Your task to perform on an android device: Open display settings Image 0: 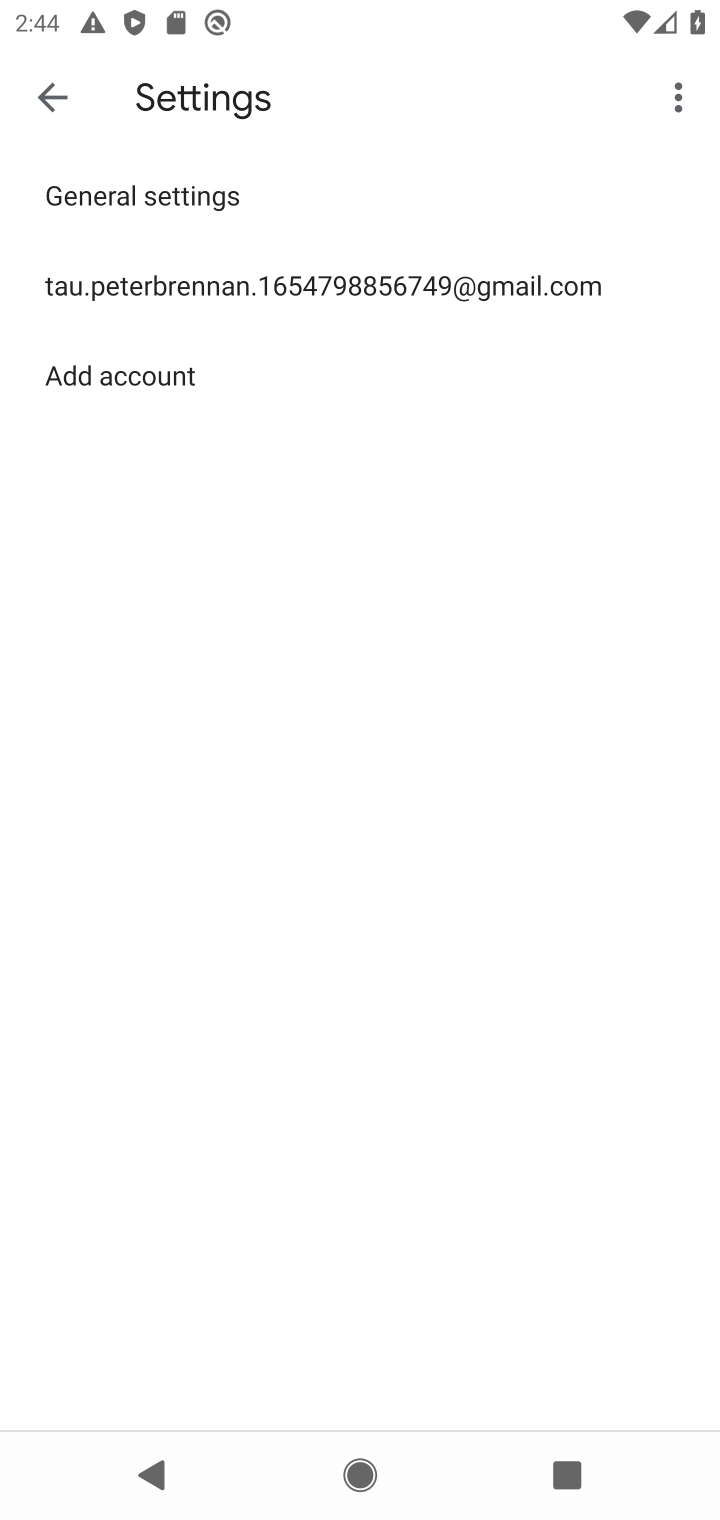
Step 0: press home button
Your task to perform on an android device: Open display settings Image 1: 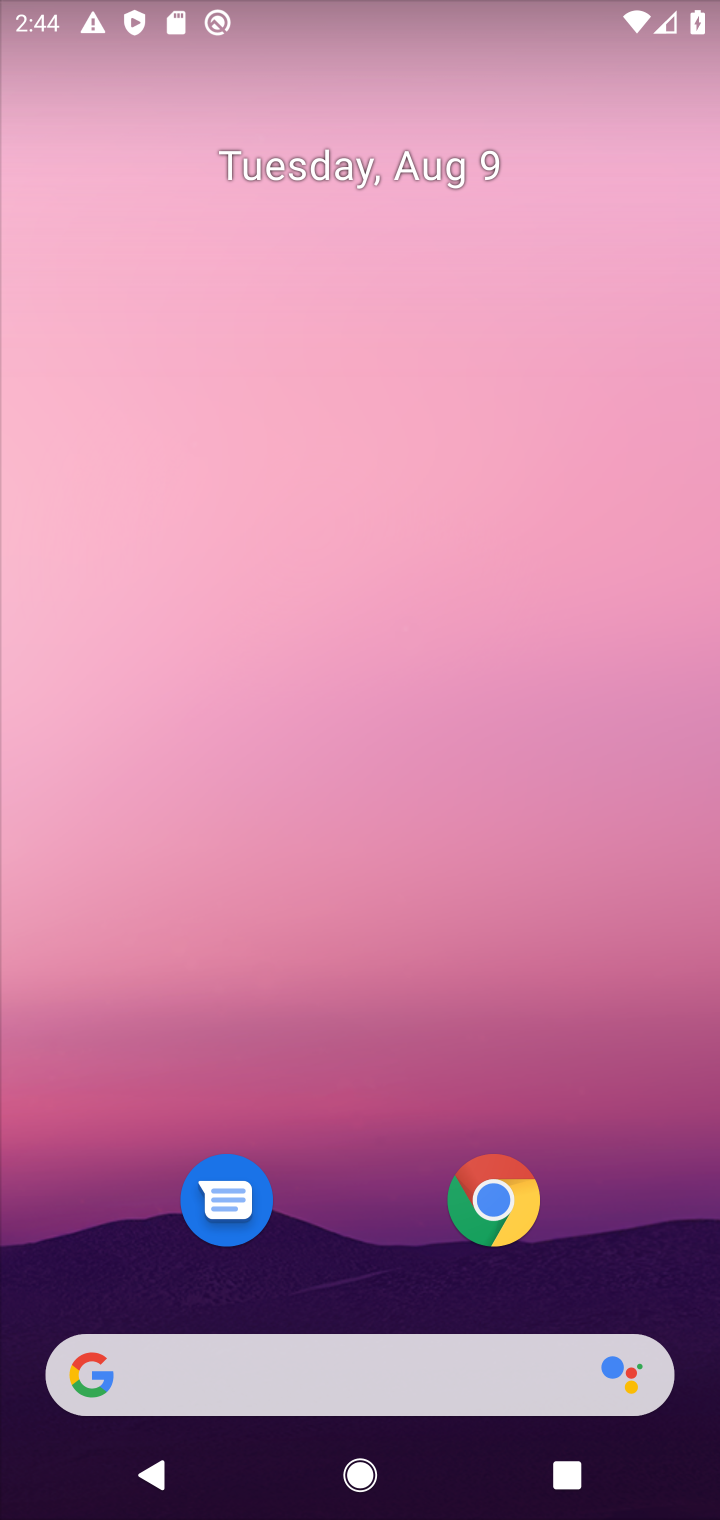
Step 1: drag from (196, 910) to (405, 62)
Your task to perform on an android device: Open display settings Image 2: 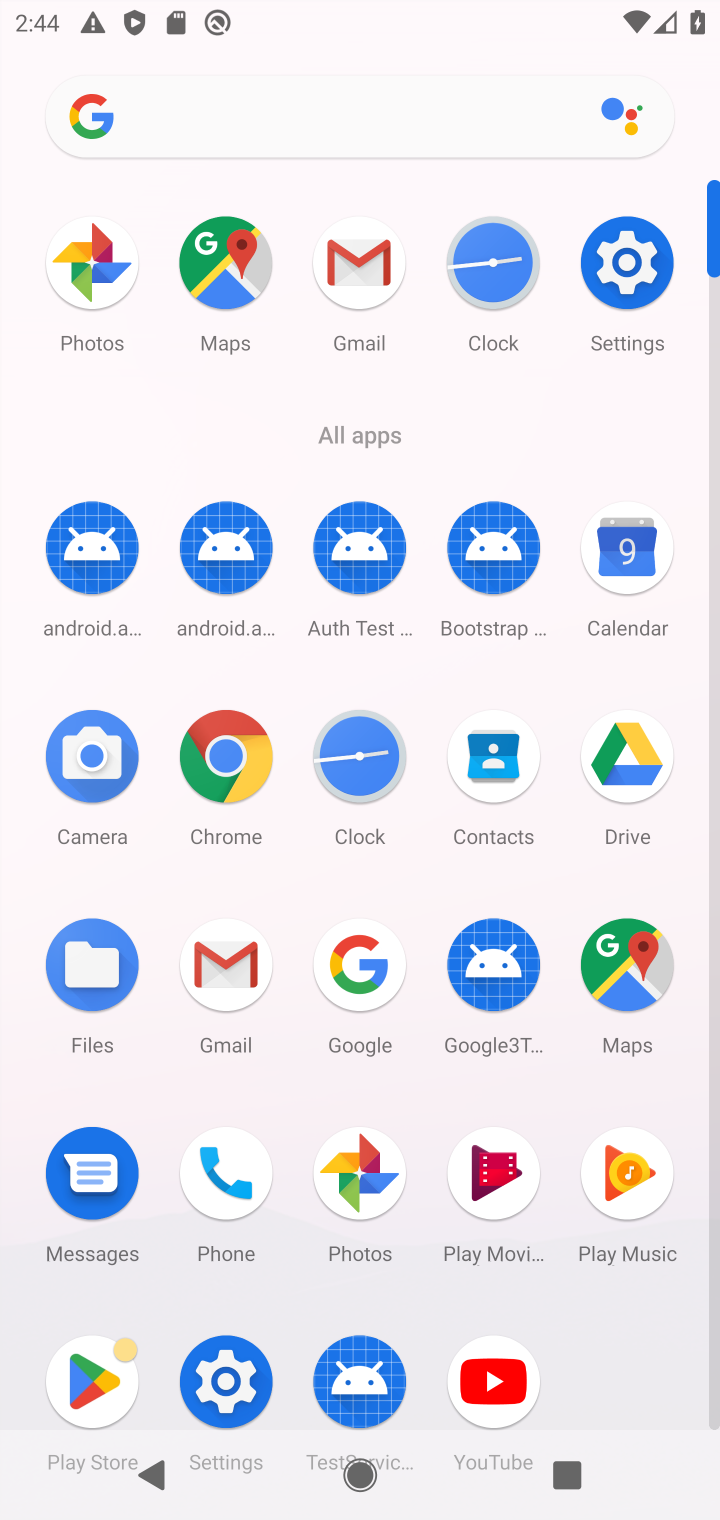
Step 2: click (626, 281)
Your task to perform on an android device: Open display settings Image 3: 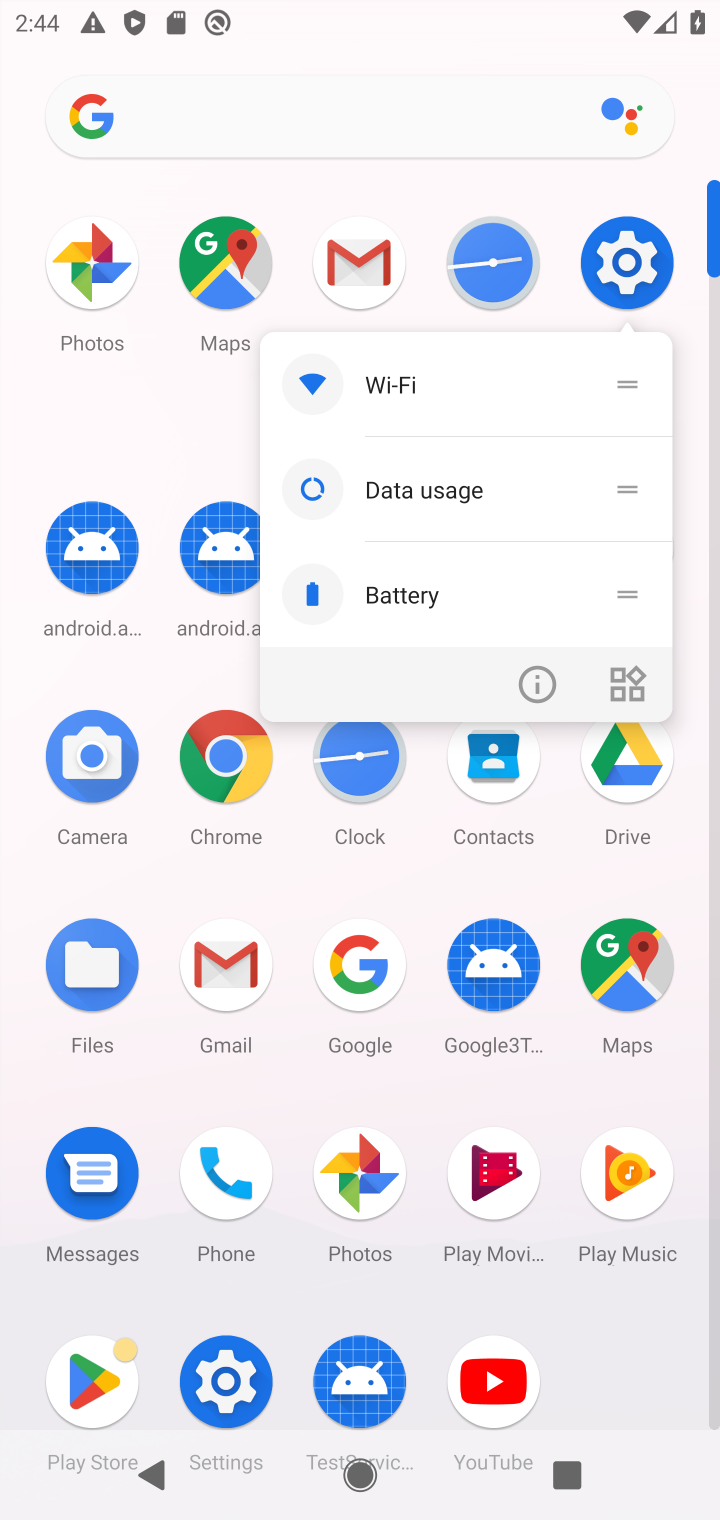
Step 3: click (620, 283)
Your task to perform on an android device: Open display settings Image 4: 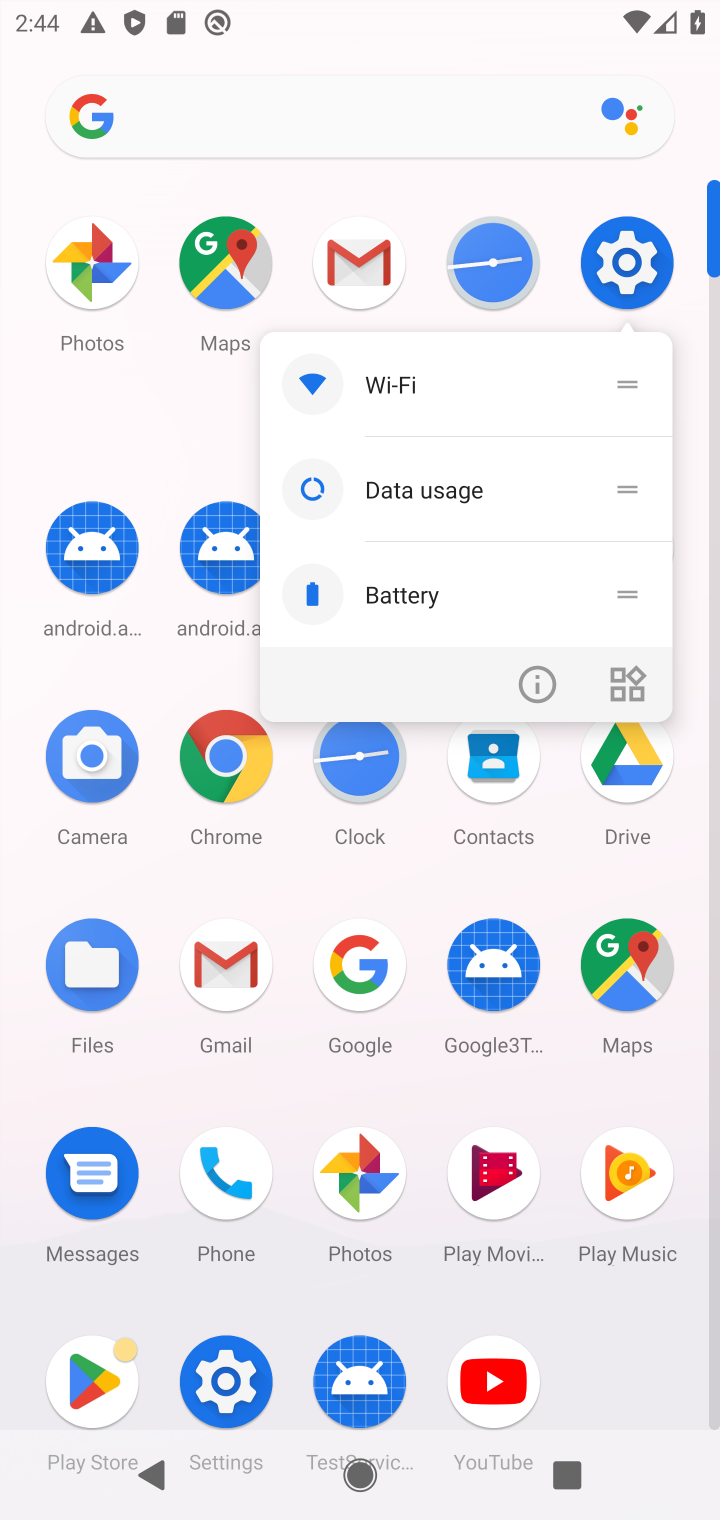
Step 4: click (646, 245)
Your task to perform on an android device: Open display settings Image 5: 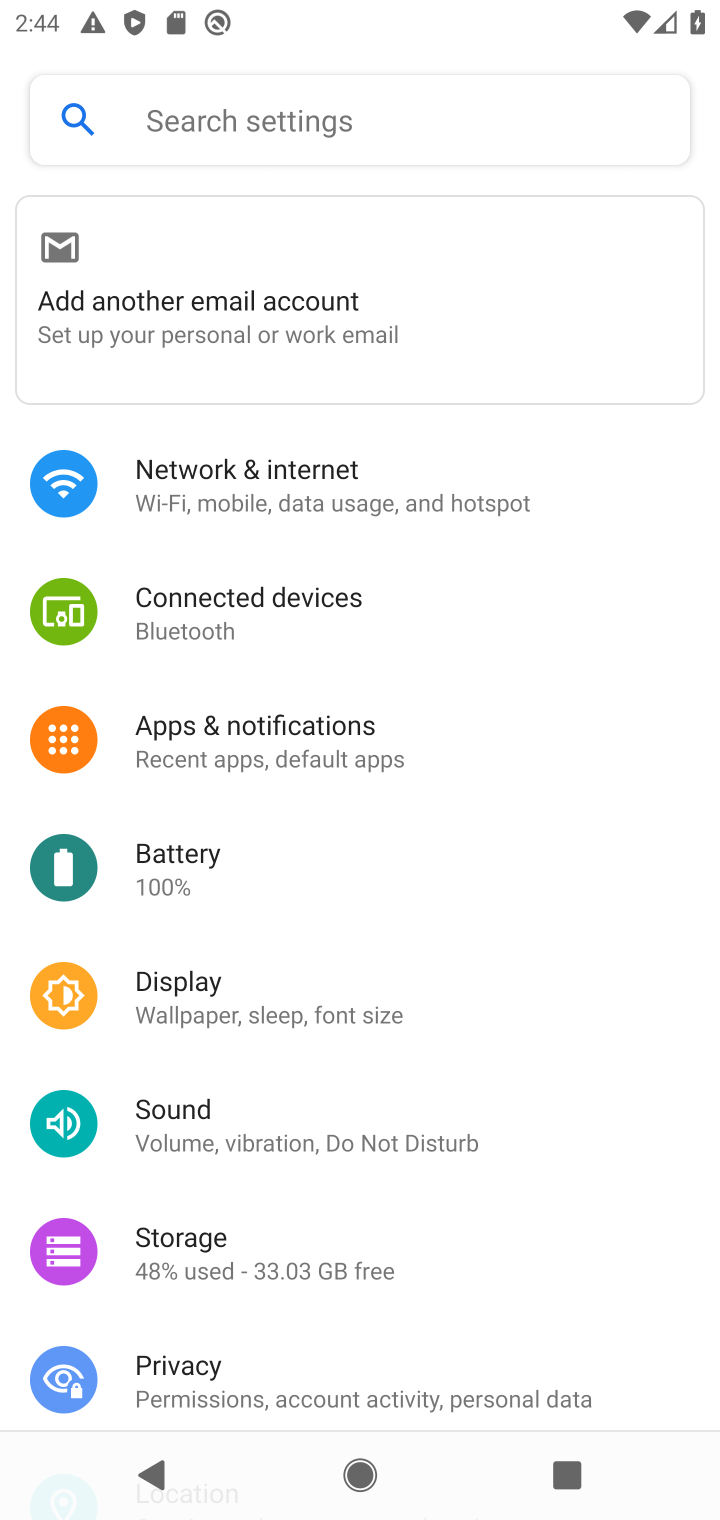
Step 5: click (187, 1001)
Your task to perform on an android device: Open display settings Image 6: 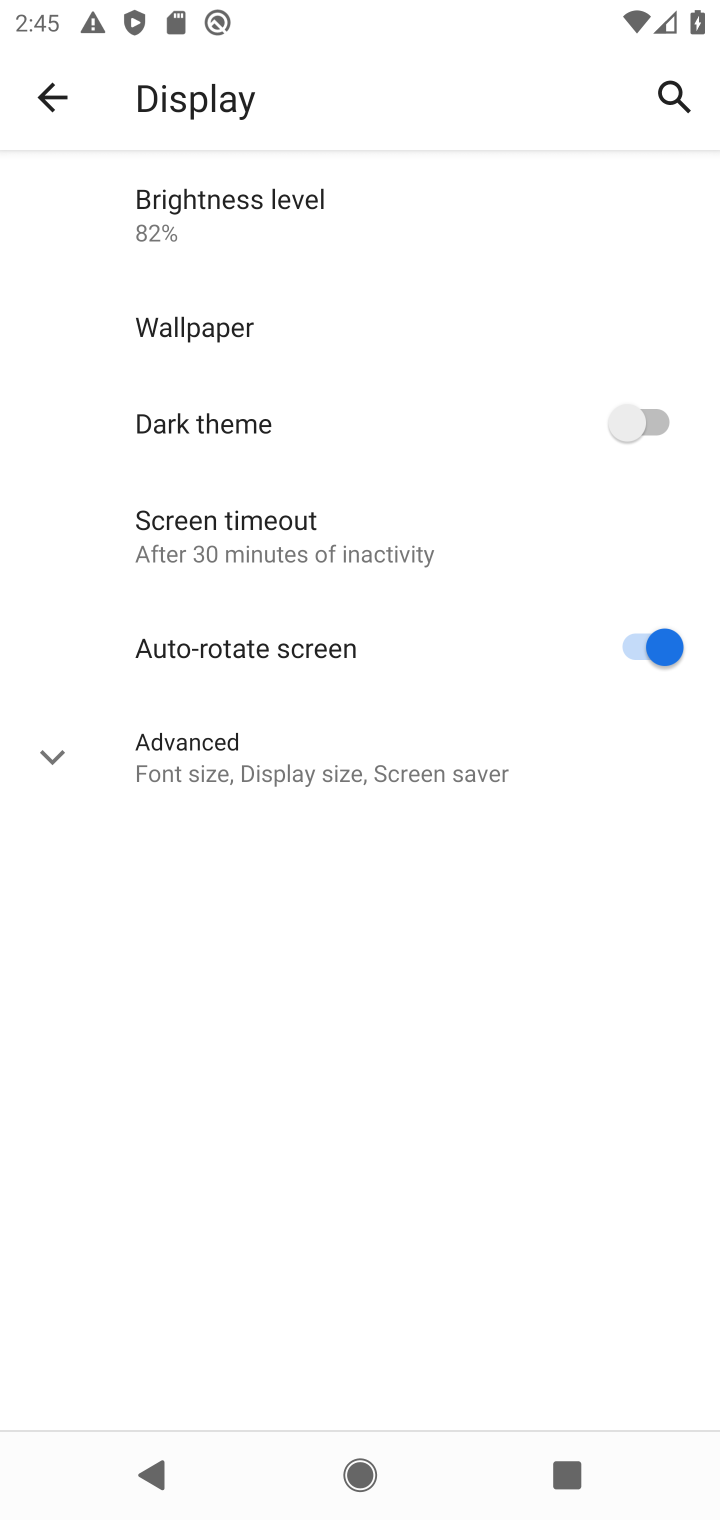
Step 6: task complete